Your task to perform on an android device: Open the calendar and show me this week's events Image 0: 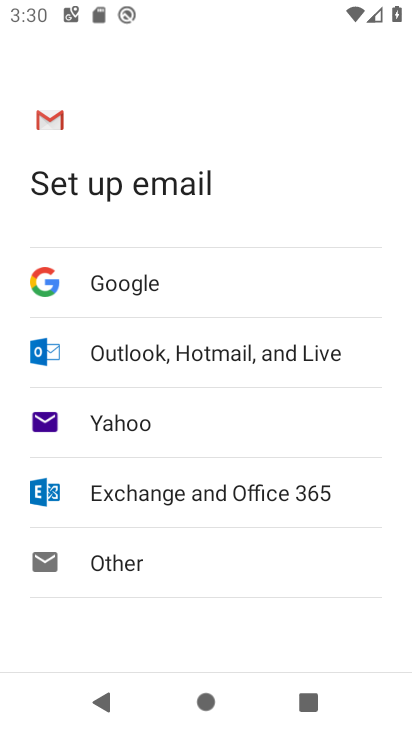
Step 0: press home button
Your task to perform on an android device: Open the calendar and show me this week's events Image 1: 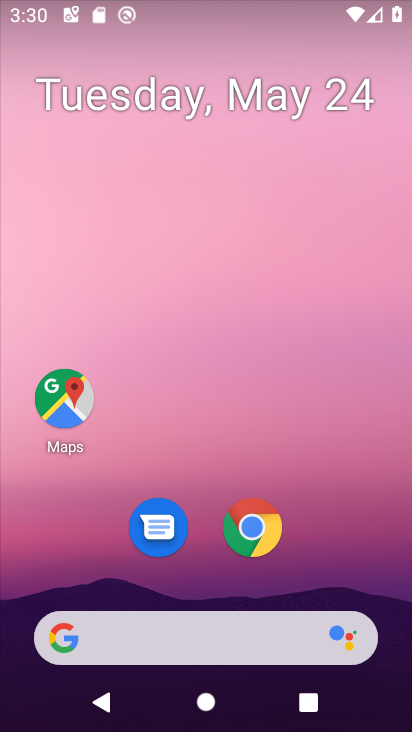
Step 1: drag from (344, 585) to (359, 10)
Your task to perform on an android device: Open the calendar and show me this week's events Image 2: 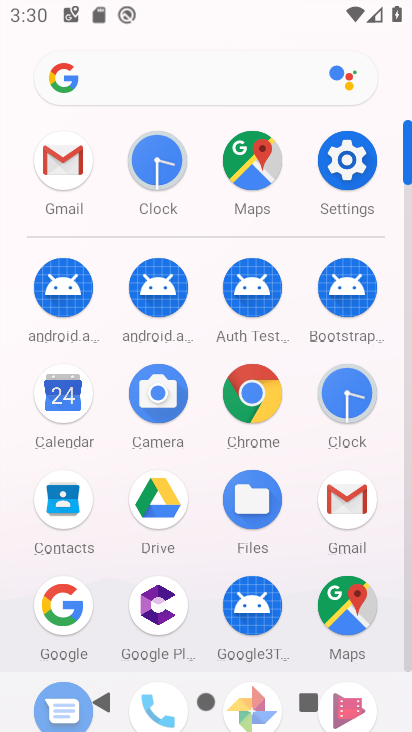
Step 2: click (51, 396)
Your task to perform on an android device: Open the calendar and show me this week's events Image 3: 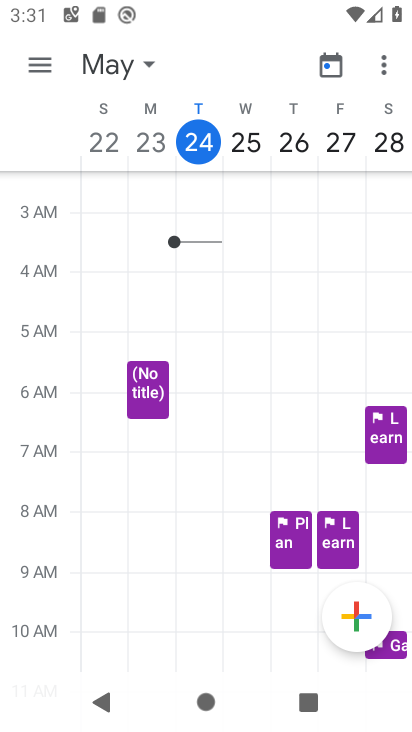
Step 3: task complete